Your task to perform on an android device: toggle location history Image 0: 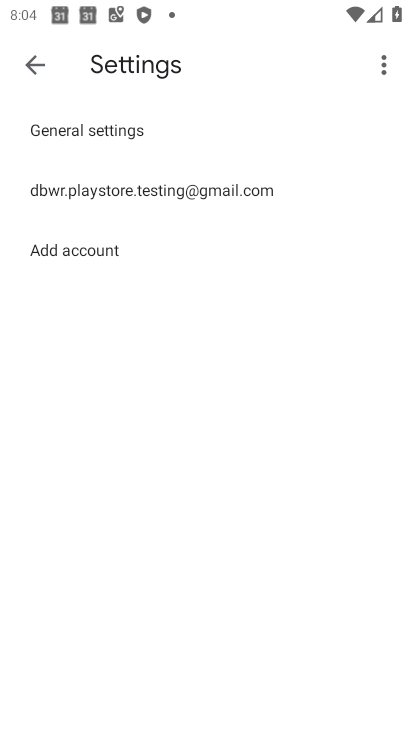
Step 0: press home button
Your task to perform on an android device: toggle location history Image 1: 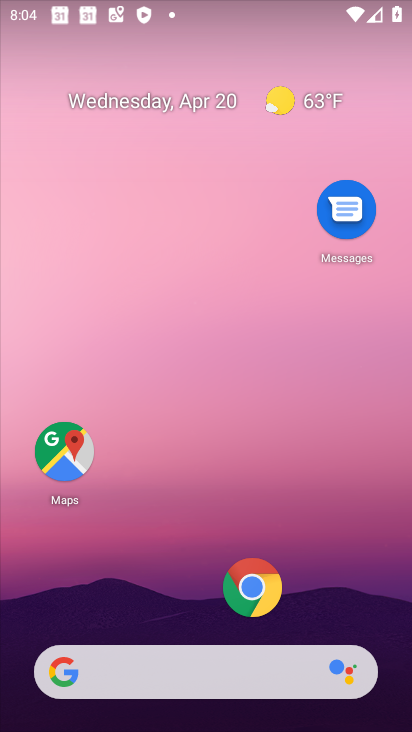
Step 1: drag from (212, 668) to (343, 23)
Your task to perform on an android device: toggle location history Image 2: 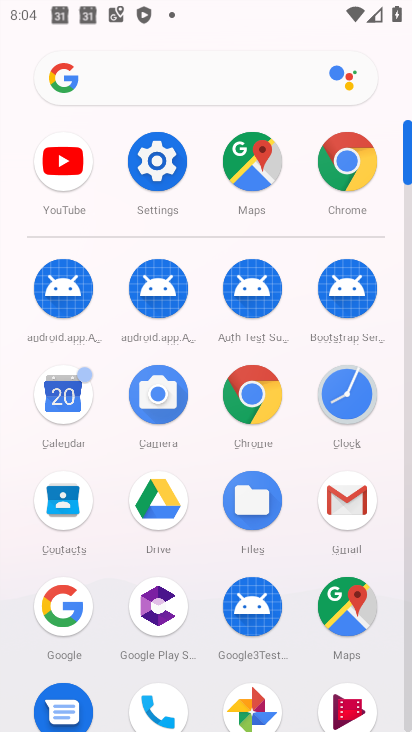
Step 2: click (156, 155)
Your task to perform on an android device: toggle location history Image 3: 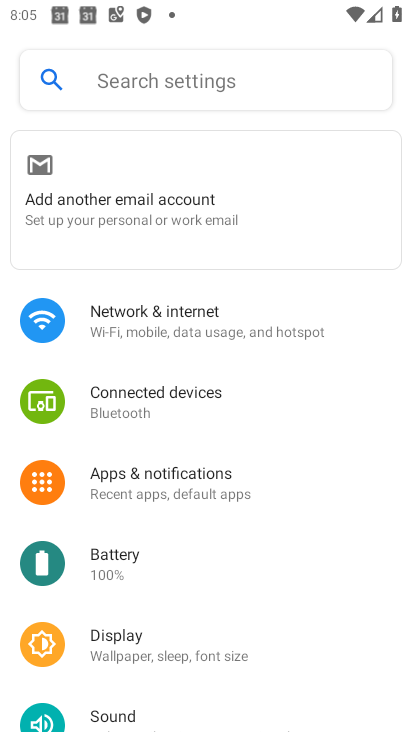
Step 3: drag from (217, 602) to (369, 130)
Your task to perform on an android device: toggle location history Image 4: 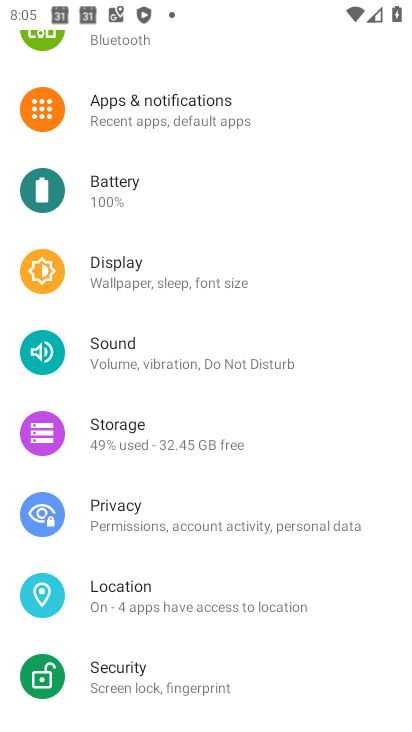
Step 4: click (142, 588)
Your task to perform on an android device: toggle location history Image 5: 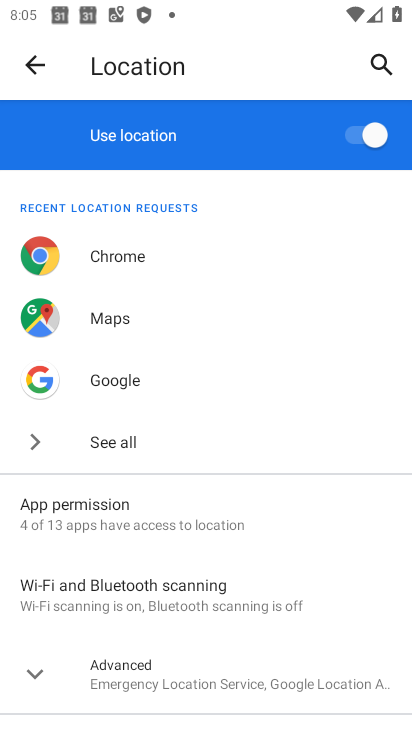
Step 5: drag from (172, 626) to (276, 315)
Your task to perform on an android device: toggle location history Image 6: 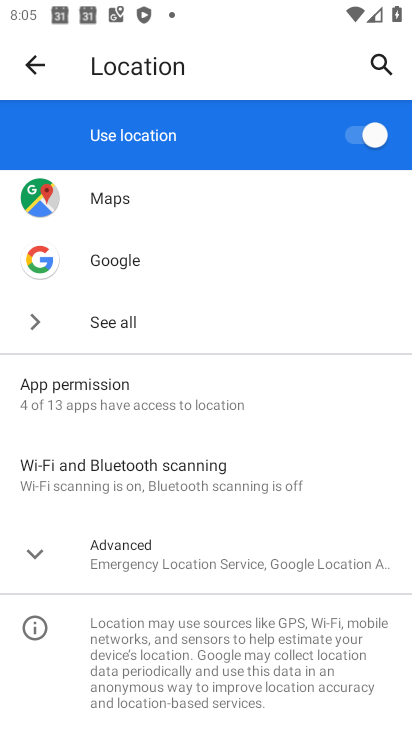
Step 6: click (104, 551)
Your task to perform on an android device: toggle location history Image 7: 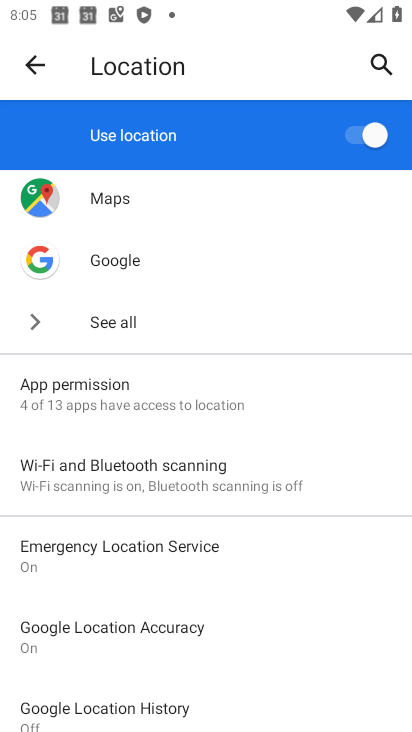
Step 7: drag from (313, 556) to (353, 245)
Your task to perform on an android device: toggle location history Image 8: 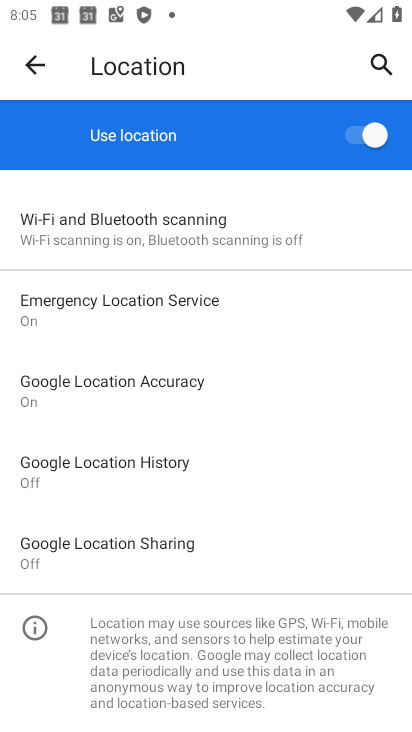
Step 8: click (145, 458)
Your task to perform on an android device: toggle location history Image 9: 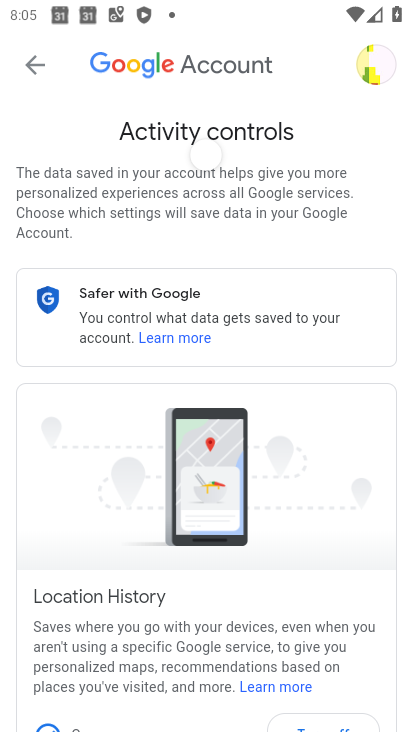
Step 9: drag from (186, 590) to (313, 202)
Your task to perform on an android device: toggle location history Image 10: 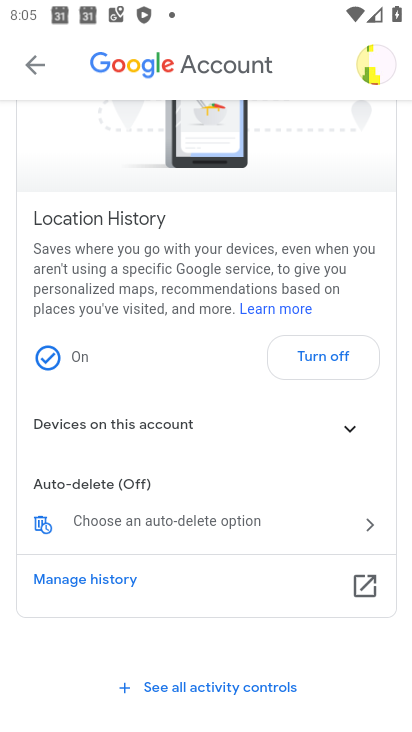
Step 10: click (338, 354)
Your task to perform on an android device: toggle location history Image 11: 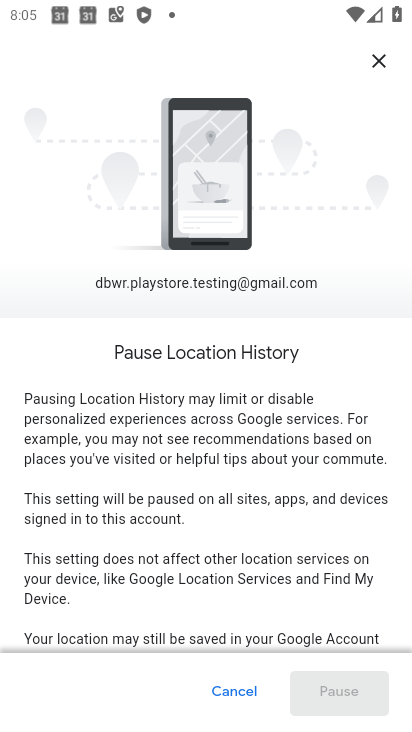
Step 11: drag from (154, 574) to (331, 161)
Your task to perform on an android device: toggle location history Image 12: 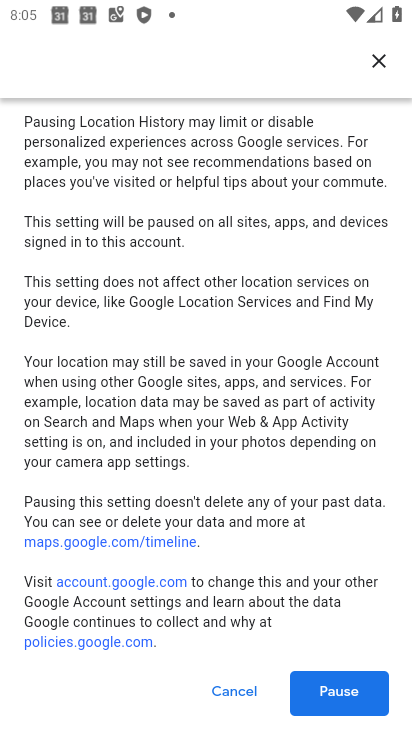
Step 12: click (344, 693)
Your task to perform on an android device: toggle location history Image 13: 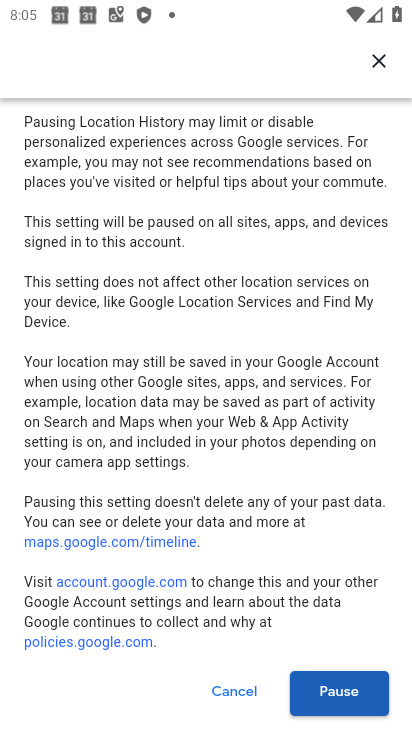
Step 13: click (337, 693)
Your task to perform on an android device: toggle location history Image 14: 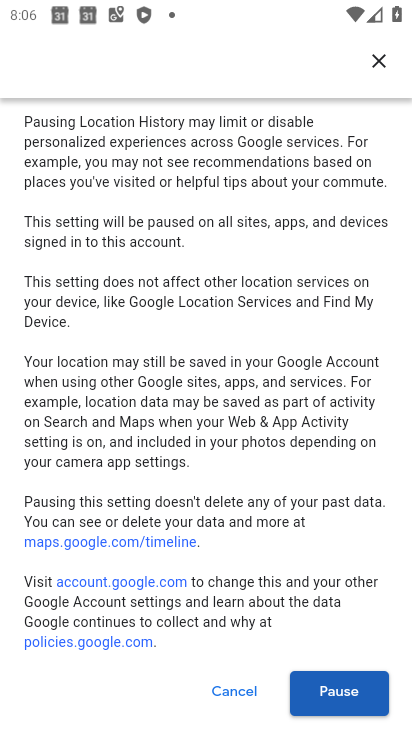
Step 14: click (341, 693)
Your task to perform on an android device: toggle location history Image 15: 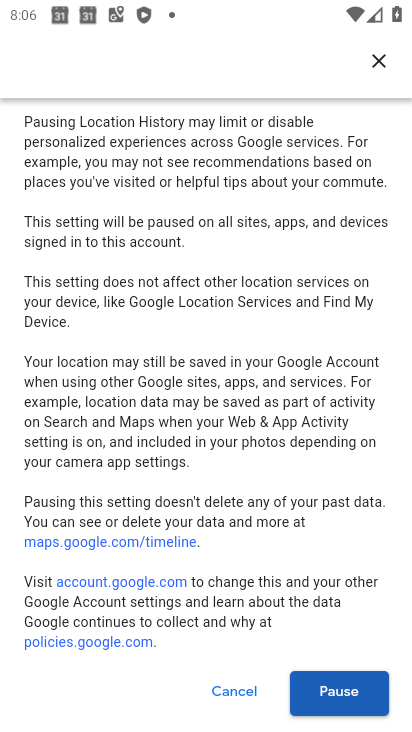
Step 15: click (338, 687)
Your task to perform on an android device: toggle location history Image 16: 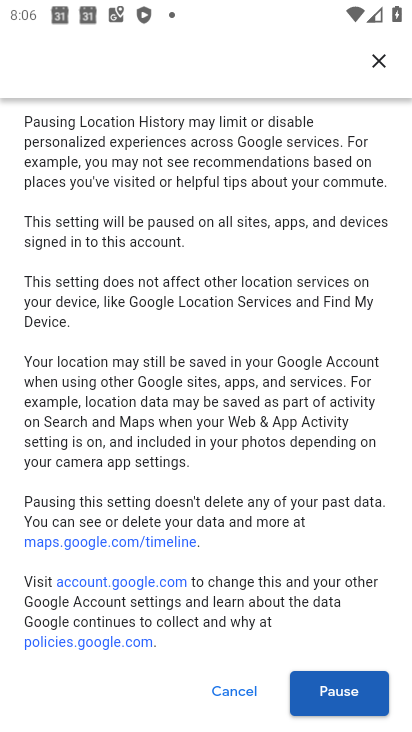
Step 16: click (337, 693)
Your task to perform on an android device: toggle location history Image 17: 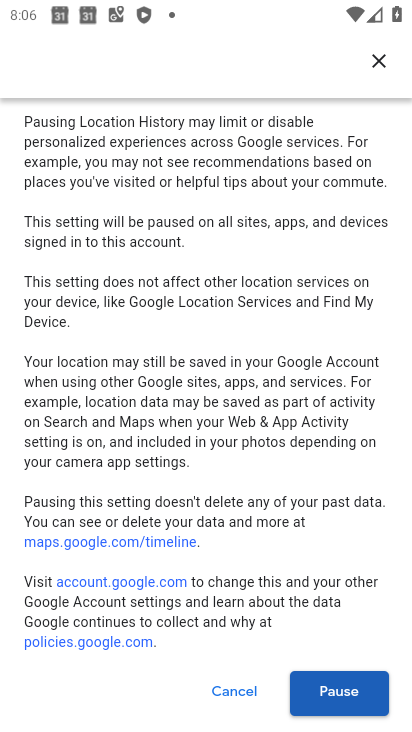
Step 17: click (338, 694)
Your task to perform on an android device: toggle location history Image 18: 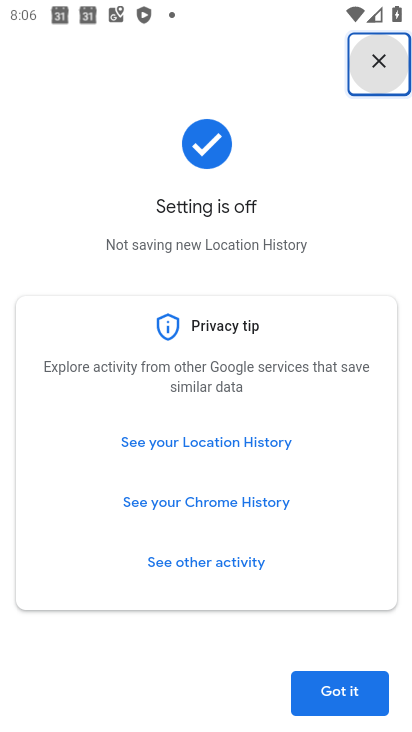
Step 18: task complete